Your task to perform on an android device: check storage Image 0: 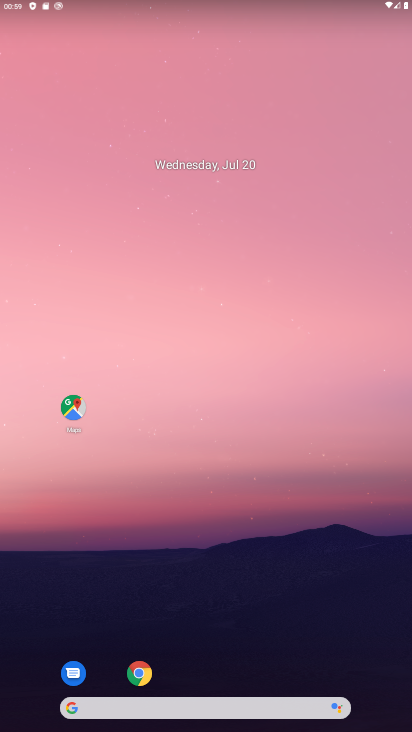
Step 0: drag from (218, 687) to (210, 36)
Your task to perform on an android device: check storage Image 1: 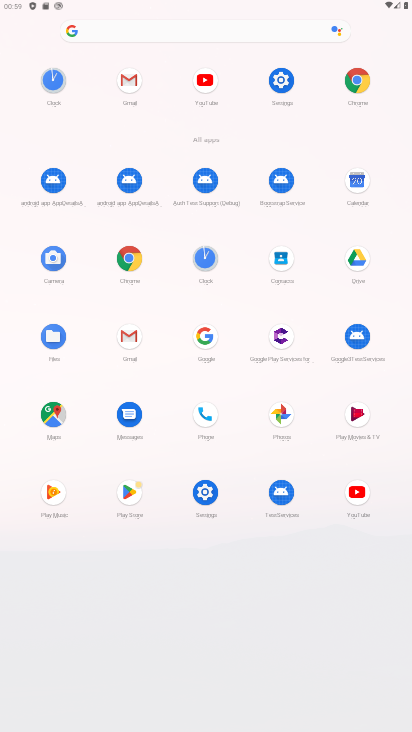
Step 1: click (287, 92)
Your task to perform on an android device: check storage Image 2: 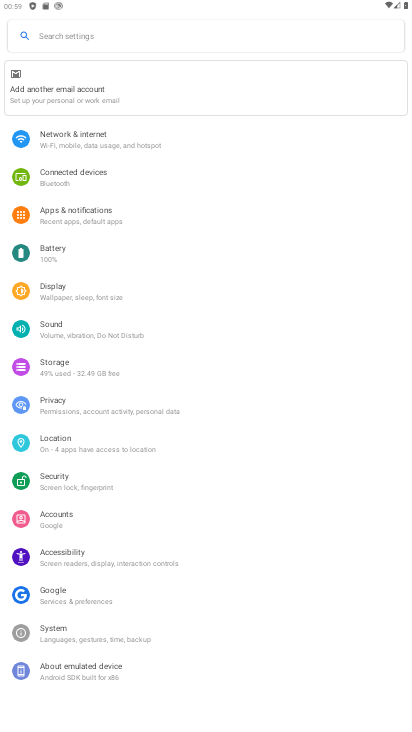
Step 2: click (96, 372)
Your task to perform on an android device: check storage Image 3: 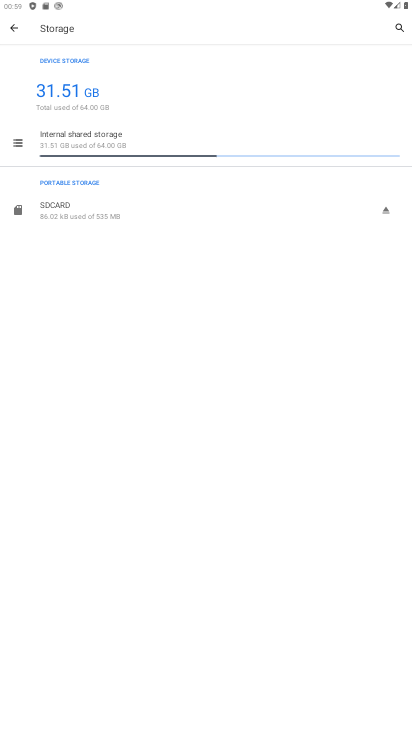
Step 3: task complete